Your task to perform on an android device: Clear the cart on ebay.com. Search for "alienware area 51" on ebay.com, select the first entry, add it to the cart, then select checkout. Image 0: 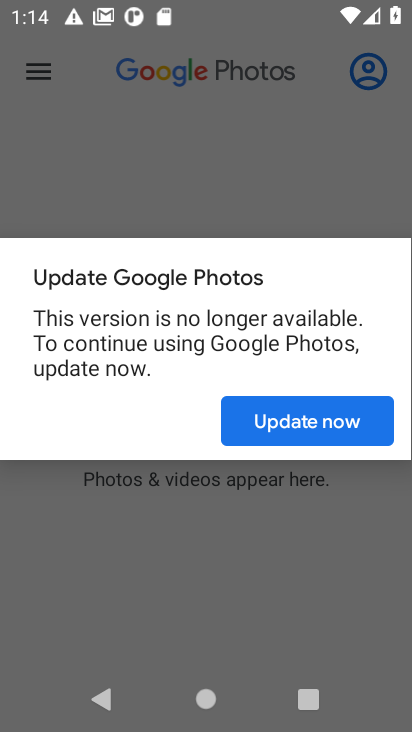
Step 0: press home button
Your task to perform on an android device: Clear the cart on ebay.com. Search for "alienware area 51" on ebay.com, select the first entry, add it to the cart, then select checkout. Image 1: 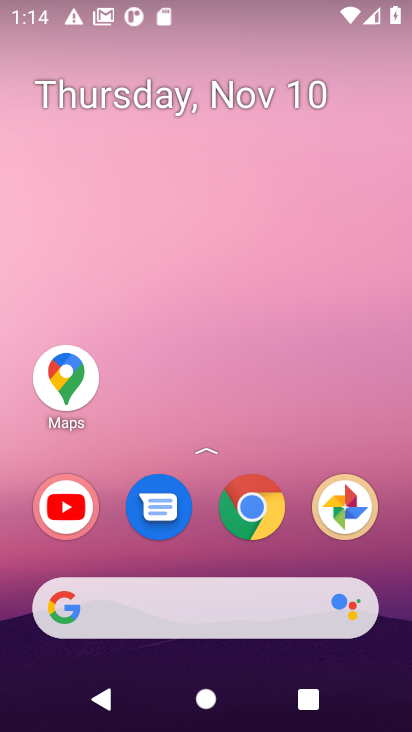
Step 1: drag from (204, 427) to (267, 132)
Your task to perform on an android device: Clear the cart on ebay.com. Search for "alienware area 51" on ebay.com, select the first entry, add it to the cart, then select checkout. Image 2: 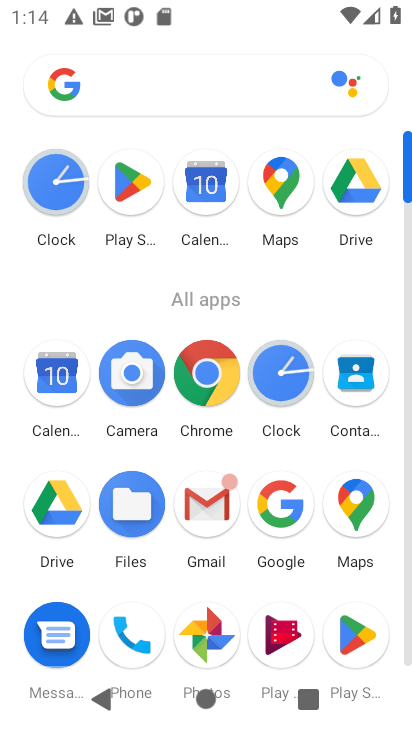
Step 2: drag from (199, 584) to (262, 418)
Your task to perform on an android device: Clear the cart on ebay.com. Search for "alienware area 51" on ebay.com, select the first entry, add it to the cart, then select checkout. Image 3: 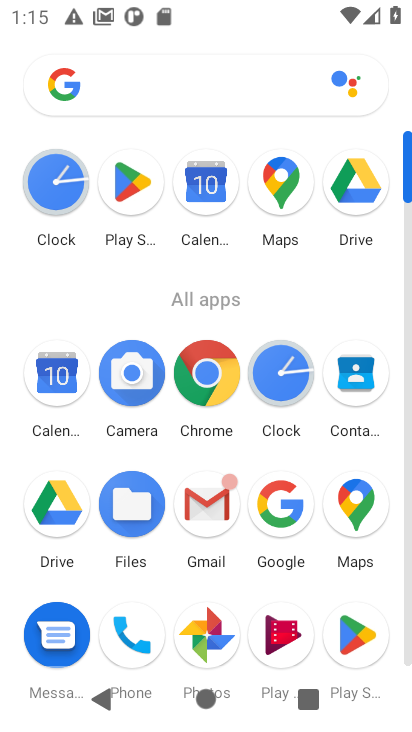
Step 3: drag from (239, 433) to (331, 282)
Your task to perform on an android device: Clear the cart on ebay.com. Search for "alienware area 51" on ebay.com, select the first entry, add it to the cart, then select checkout. Image 4: 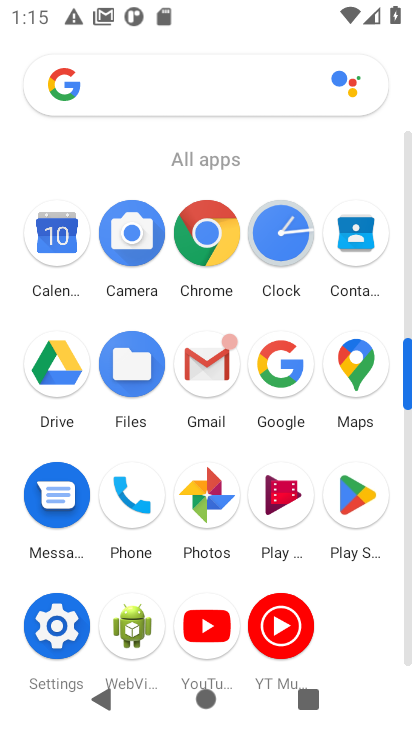
Step 4: click (39, 623)
Your task to perform on an android device: Clear the cart on ebay.com. Search for "alienware area 51" on ebay.com, select the first entry, add it to the cart, then select checkout. Image 5: 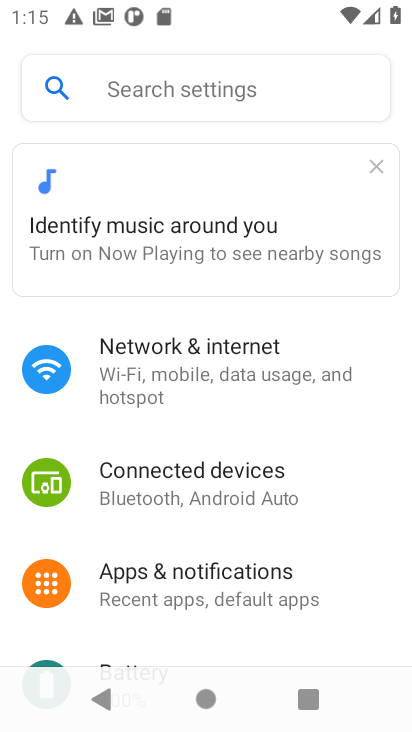
Step 5: drag from (181, 525) to (276, 123)
Your task to perform on an android device: Clear the cart on ebay.com. Search for "alienware area 51" on ebay.com, select the first entry, add it to the cart, then select checkout. Image 6: 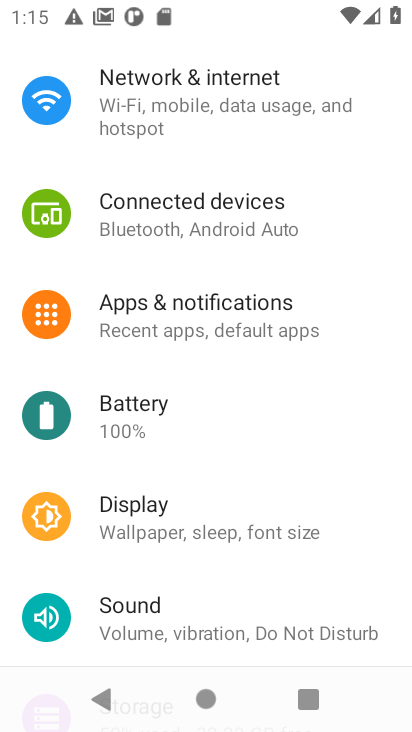
Step 6: click (146, 522)
Your task to perform on an android device: Clear the cart on ebay.com. Search for "alienware area 51" on ebay.com, select the first entry, add it to the cart, then select checkout. Image 7: 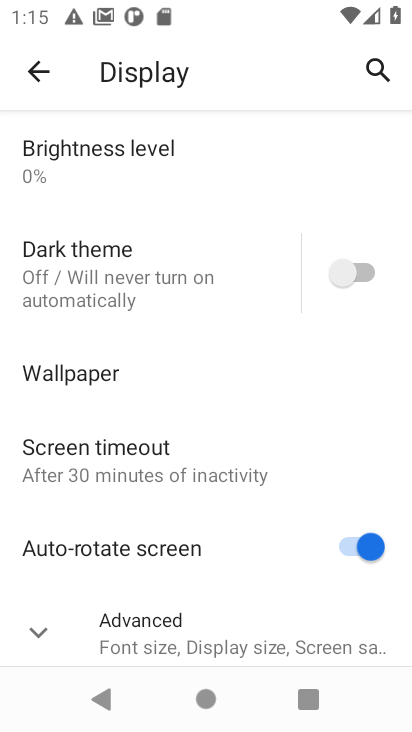
Step 7: click (186, 631)
Your task to perform on an android device: Clear the cart on ebay.com. Search for "alienware area 51" on ebay.com, select the first entry, add it to the cart, then select checkout. Image 8: 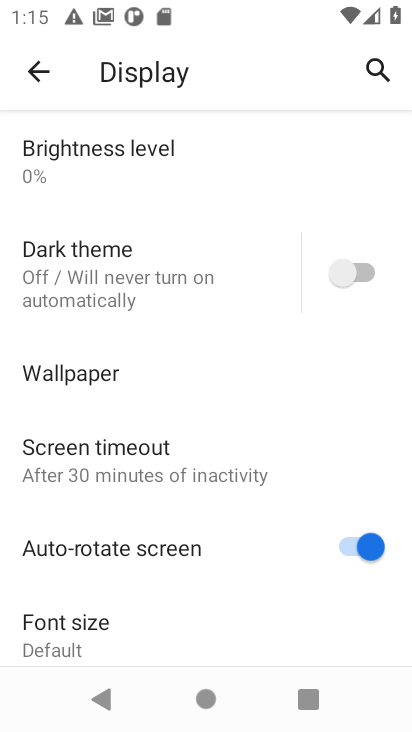
Step 8: drag from (193, 629) to (350, 110)
Your task to perform on an android device: Clear the cart on ebay.com. Search for "alienware area 51" on ebay.com, select the first entry, add it to the cart, then select checkout. Image 9: 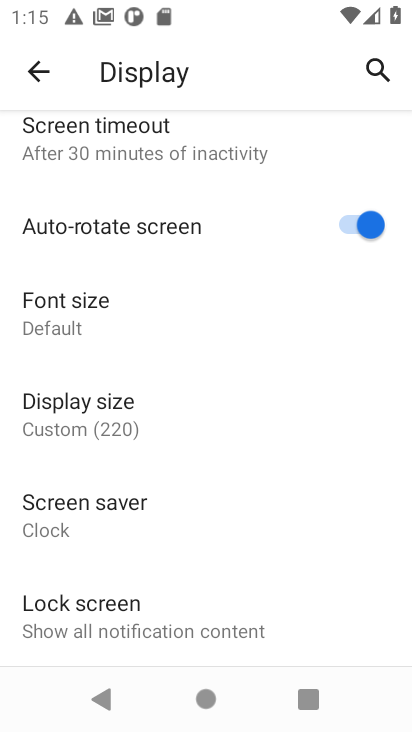
Step 9: click (104, 410)
Your task to perform on an android device: Clear the cart on ebay.com. Search for "alienware area 51" on ebay.com, select the first entry, add it to the cart, then select checkout. Image 10: 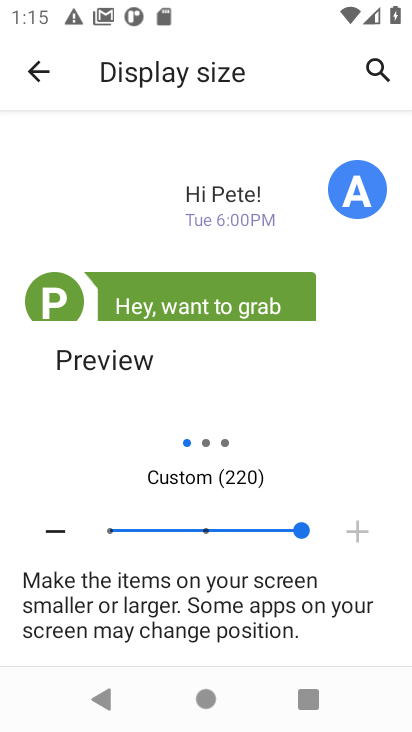
Step 10: click (111, 530)
Your task to perform on an android device: Clear the cart on ebay.com. Search for "alienware area 51" on ebay.com, select the first entry, add it to the cart, then select checkout. Image 11: 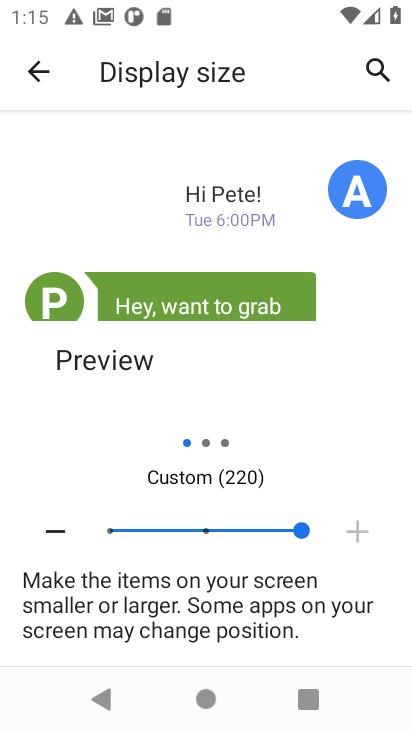
Step 11: click (111, 530)
Your task to perform on an android device: Clear the cart on ebay.com. Search for "alienware area 51" on ebay.com, select the first entry, add it to the cart, then select checkout. Image 12: 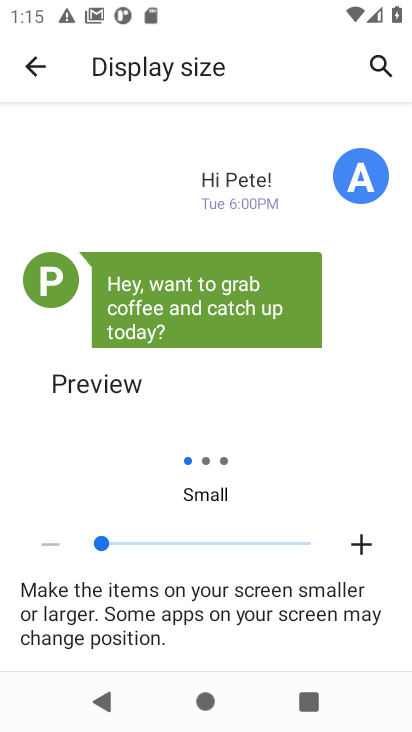
Step 12: click (111, 530)
Your task to perform on an android device: Clear the cart on ebay.com. Search for "alienware area 51" on ebay.com, select the first entry, add it to the cart, then select checkout. Image 13: 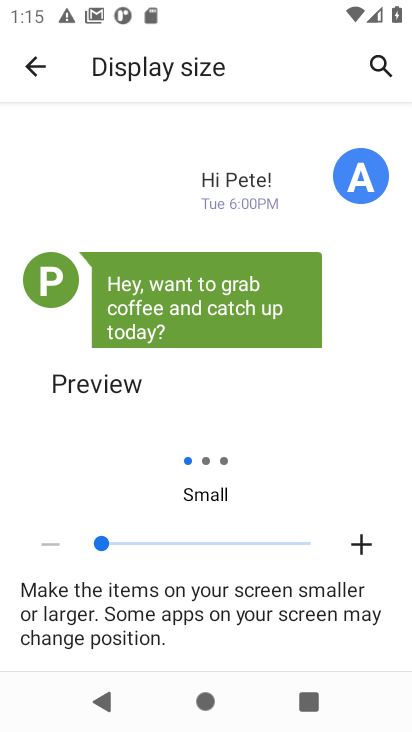
Step 13: click (41, 60)
Your task to perform on an android device: Clear the cart on ebay.com. Search for "alienware area 51" on ebay.com, select the first entry, add it to the cart, then select checkout. Image 14: 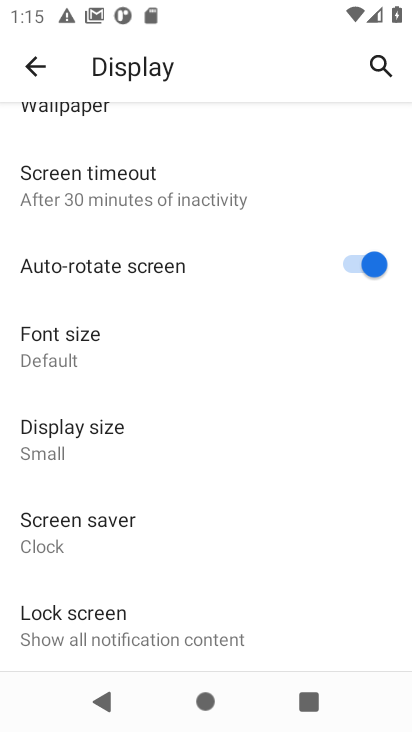
Step 14: click (28, 58)
Your task to perform on an android device: Clear the cart on ebay.com. Search for "alienware area 51" on ebay.com, select the first entry, add it to the cart, then select checkout. Image 15: 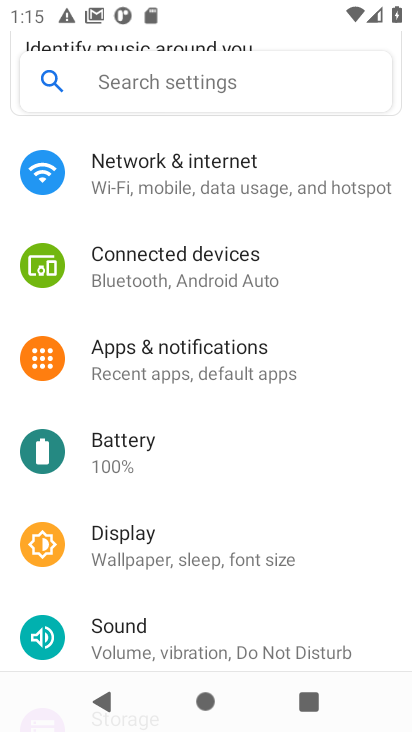
Step 15: press home button
Your task to perform on an android device: Clear the cart on ebay.com. Search for "alienware area 51" on ebay.com, select the first entry, add it to the cart, then select checkout. Image 16: 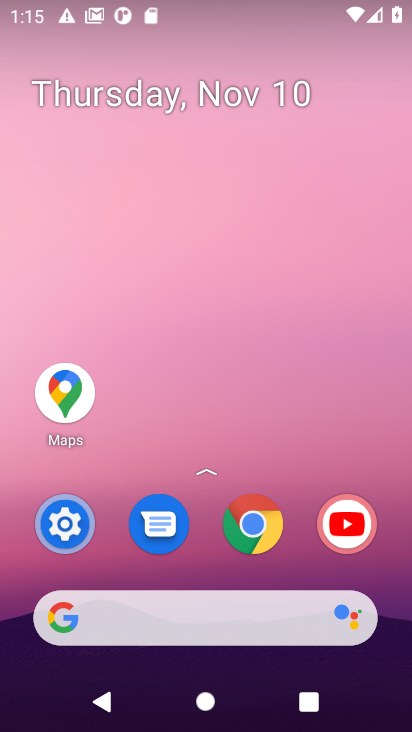
Step 16: click (204, 614)
Your task to perform on an android device: Clear the cart on ebay.com. Search for "alienware area 51" on ebay.com, select the first entry, add it to the cart, then select checkout. Image 17: 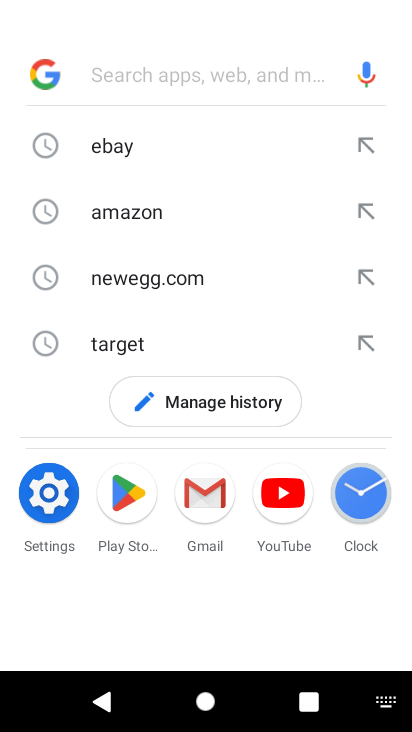
Step 17: type "alienware area 51 on ebay"
Your task to perform on an android device: Clear the cart on ebay.com. Search for "alienware area 51" on ebay.com, select the first entry, add it to the cart, then select checkout. Image 18: 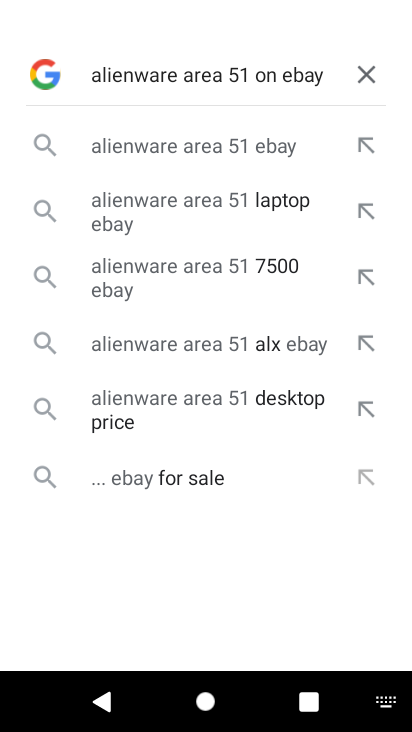
Step 18: click (218, 146)
Your task to perform on an android device: Clear the cart on ebay.com. Search for "alienware area 51" on ebay.com, select the first entry, add it to the cart, then select checkout. Image 19: 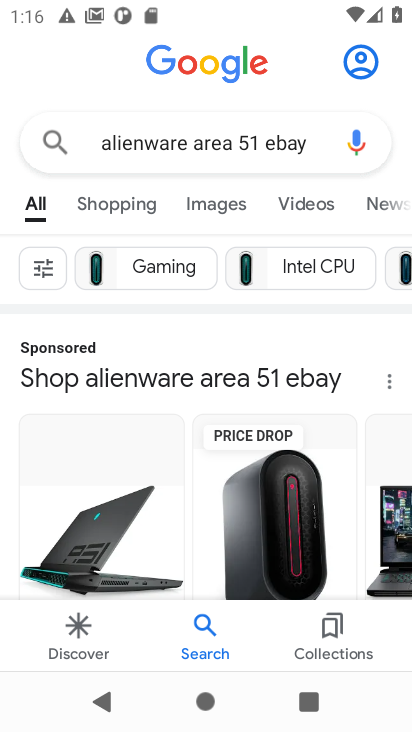
Step 19: drag from (186, 540) to (229, 231)
Your task to perform on an android device: Clear the cart on ebay.com. Search for "alienware area 51" on ebay.com, select the first entry, add it to the cart, then select checkout. Image 20: 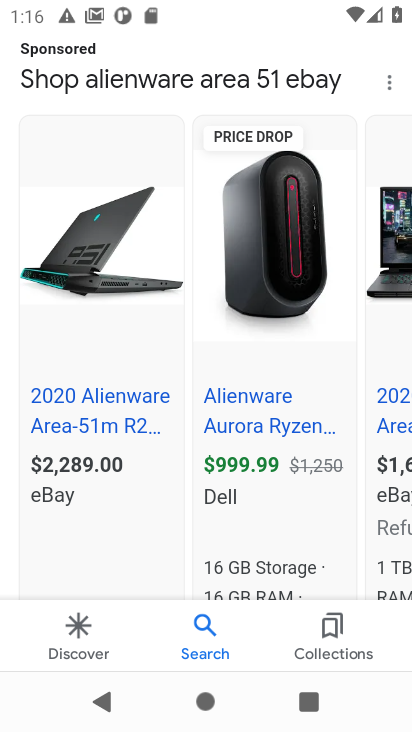
Step 20: click (133, 396)
Your task to perform on an android device: Clear the cart on ebay.com. Search for "alienware area 51" on ebay.com, select the first entry, add it to the cart, then select checkout. Image 21: 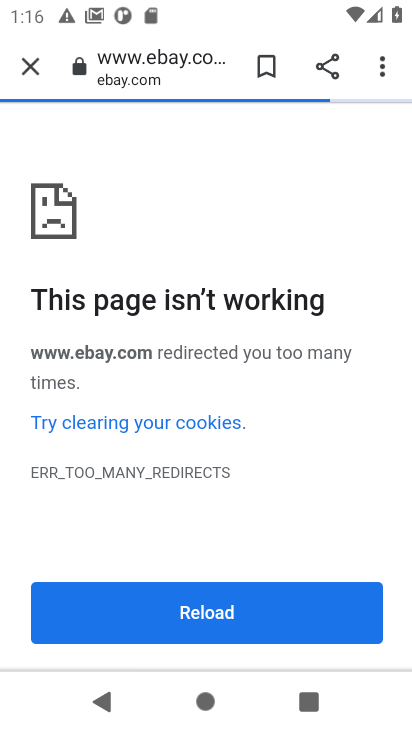
Step 21: task complete